Your task to perform on an android device: empty trash in the gmail app Image 0: 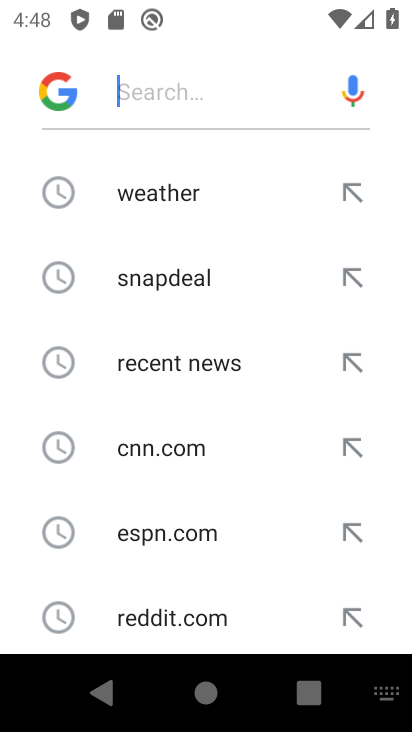
Step 0: press home button
Your task to perform on an android device: empty trash in the gmail app Image 1: 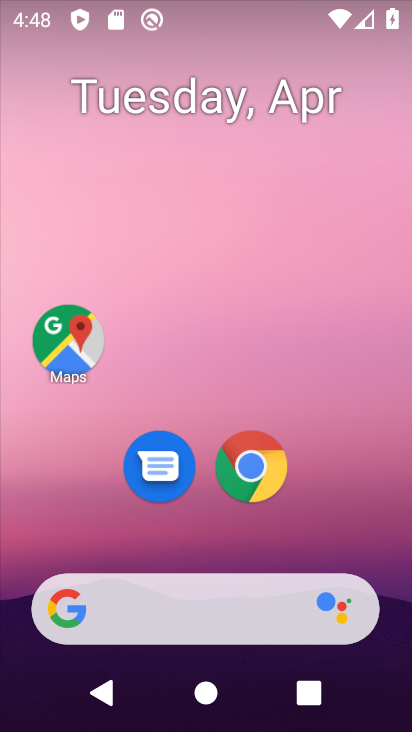
Step 1: drag from (209, 415) to (214, 43)
Your task to perform on an android device: empty trash in the gmail app Image 2: 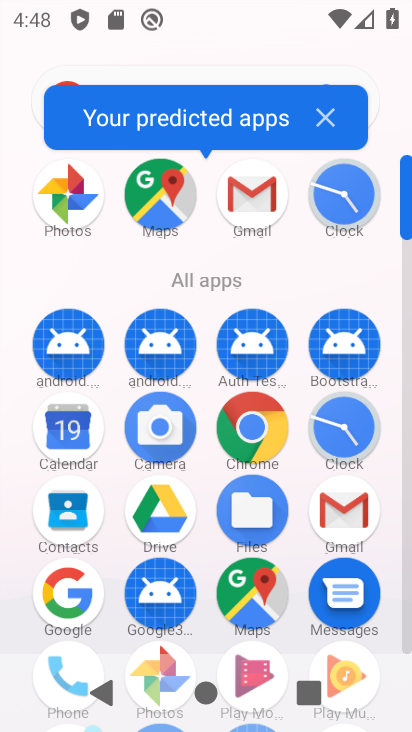
Step 2: click (258, 207)
Your task to perform on an android device: empty trash in the gmail app Image 3: 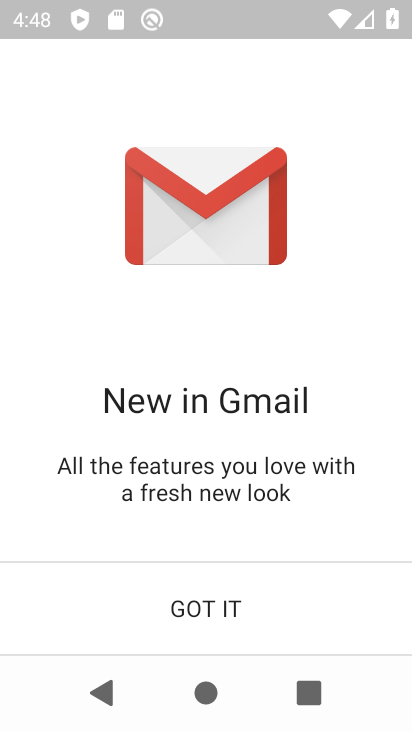
Step 3: click (236, 629)
Your task to perform on an android device: empty trash in the gmail app Image 4: 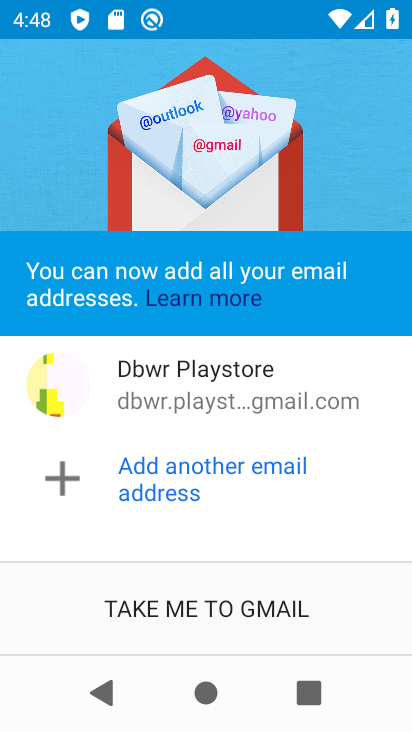
Step 4: click (236, 629)
Your task to perform on an android device: empty trash in the gmail app Image 5: 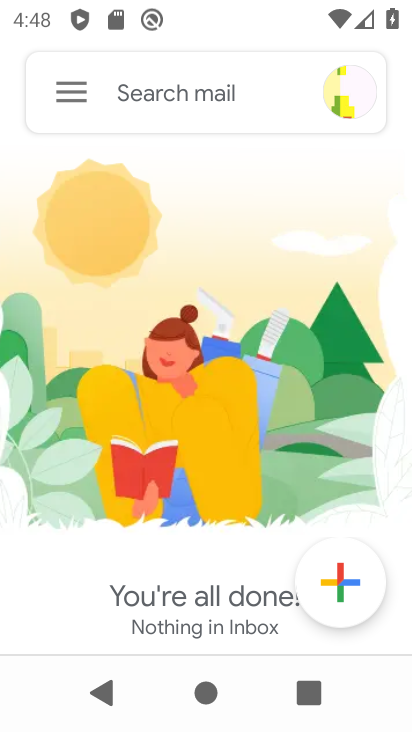
Step 5: click (63, 92)
Your task to perform on an android device: empty trash in the gmail app Image 6: 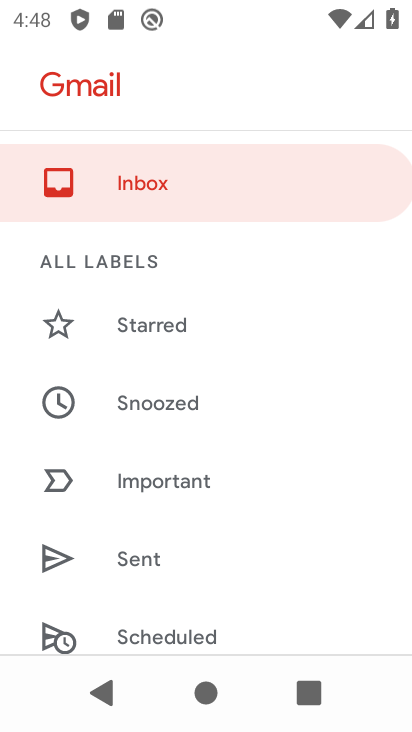
Step 6: drag from (131, 555) to (204, 78)
Your task to perform on an android device: empty trash in the gmail app Image 7: 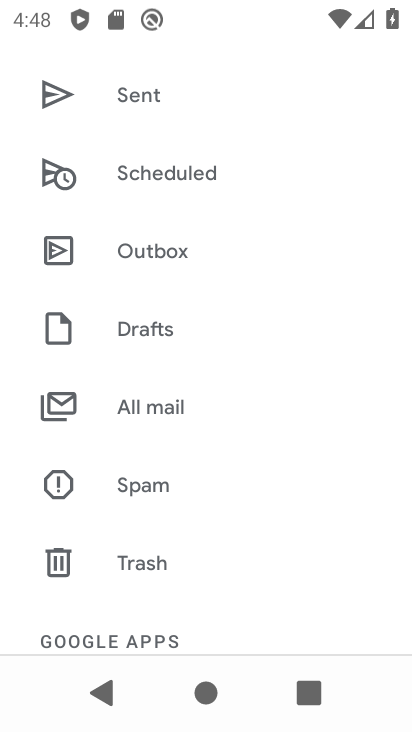
Step 7: click (143, 563)
Your task to perform on an android device: empty trash in the gmail app Image 8: 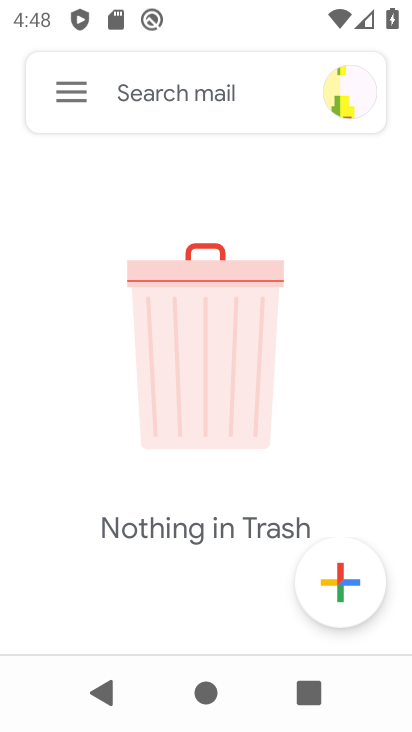
Step 8: task complete